Your task to perform on an android device: Go to wifi settings Image 0: 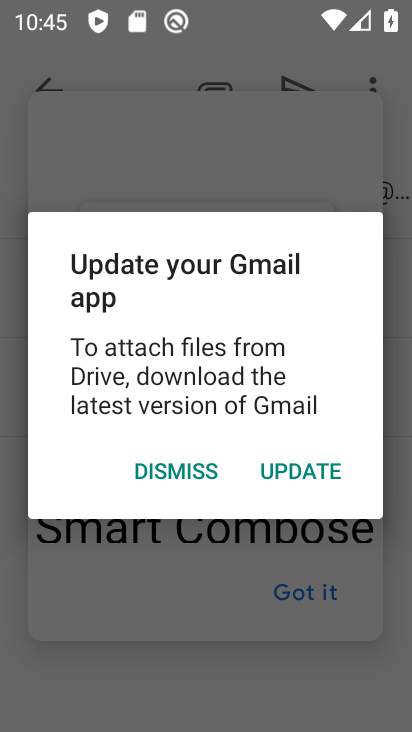
Step 0: press home button
Your task to perform on an android device: Go to wifi settings Image 1: 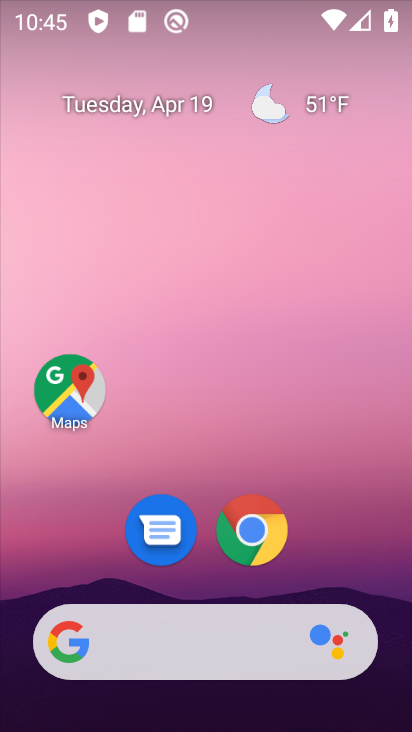
Step 1: drag from (311, 427) to (334, 101)
Your task to perform on an android device: Go to wifi settings Image 2: 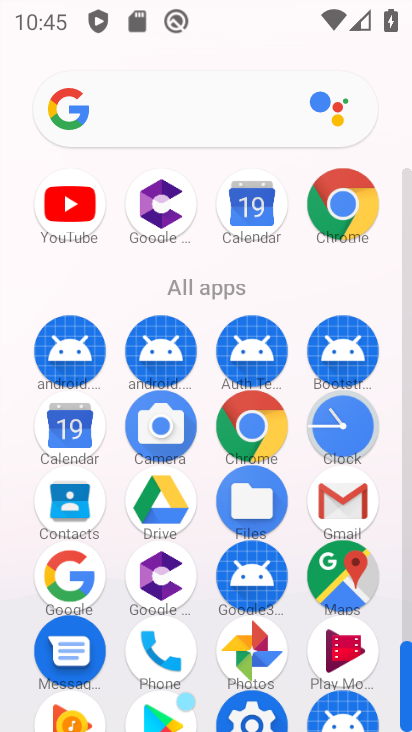
Step 2: drag from (208, 382) to (242, 180)
Your task to perform on an android device: Go to wifi settings Image 3: 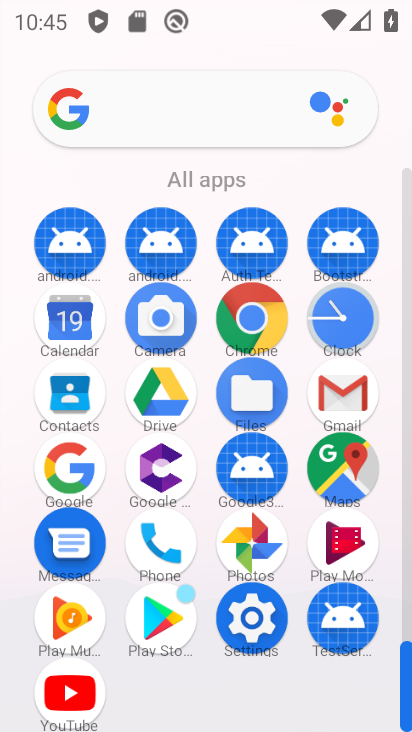
Step 3: click (246, 596)
Your task to perform on an android device: Go to wifi settings Image 4: 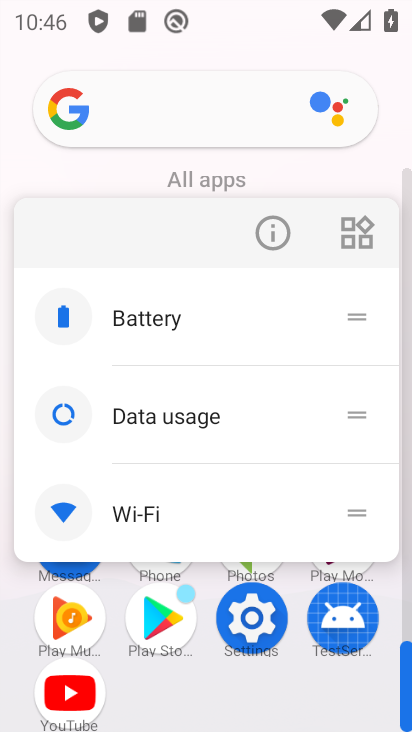
Step 4: click (246, 596)
Your task to perform on an android device: Go to wifi settings Image 5: 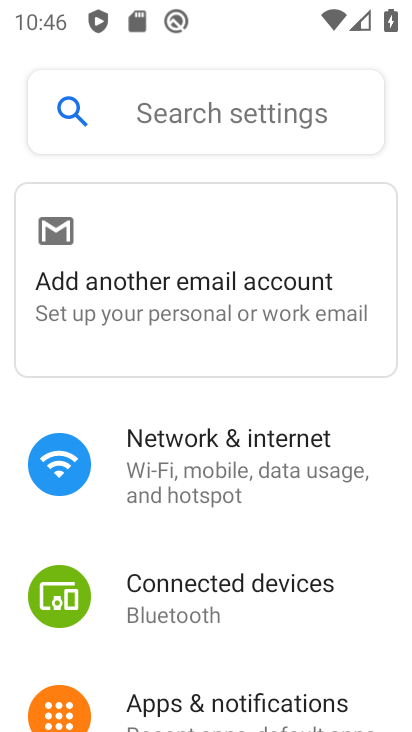
Step 5: click (265, 455)
Your task to perform on an android device: Go to wifi settings Image 6: 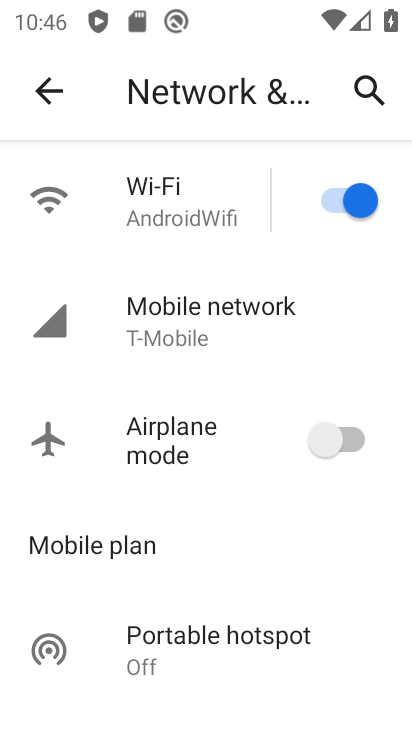
Step 6: click (189, 201)
Your task to perform on an android device: Go to wifi settings Image 7: 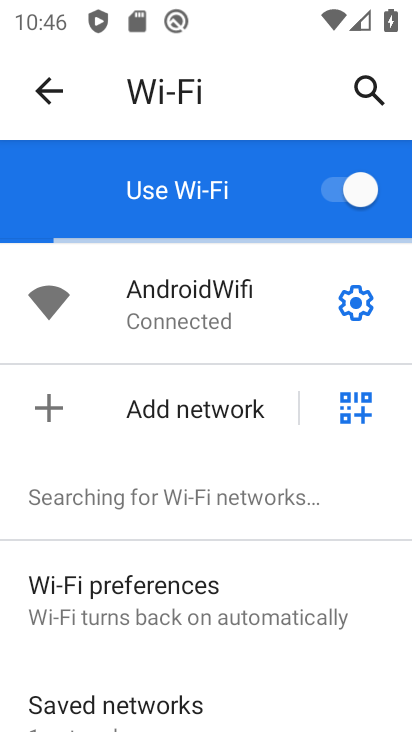
Step 7: task complete